Your task to perform on an android device: Go to Wikipedia Image 0: 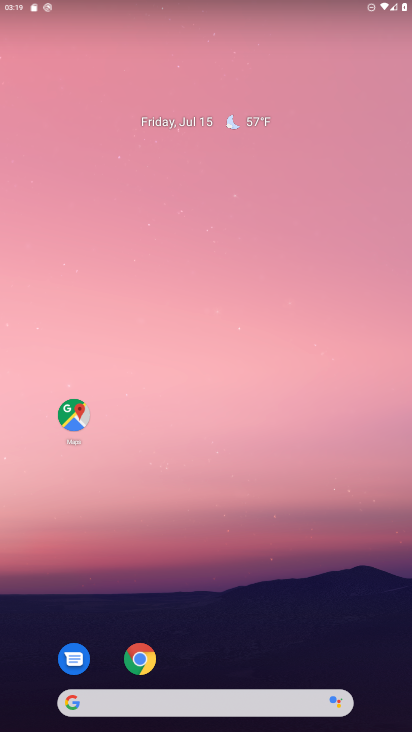
Step 0: drag from (180, 668) to (210, 140)
Your task to perform on an android device: Go to Wikipedia Image 1: 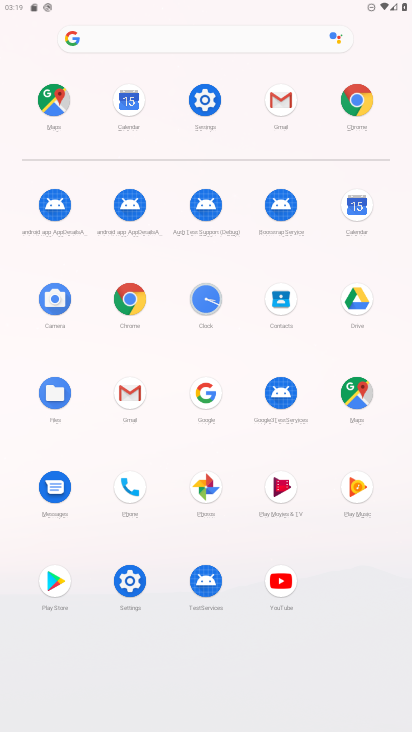
Step 1: click (127, 309)
Your task to perform on an android device: Go to Wikipedia Image 2: 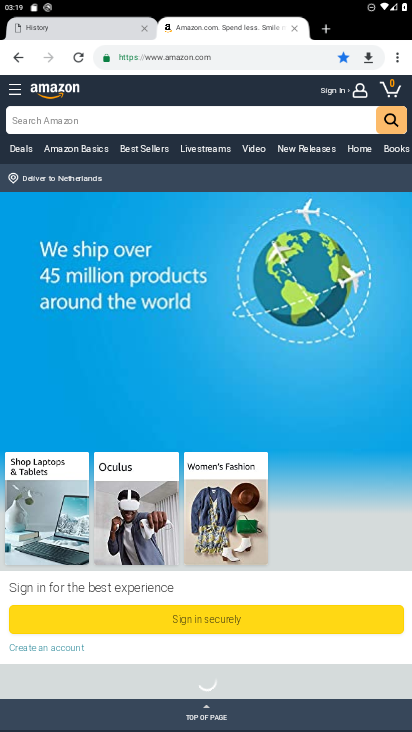
Step 2: click (152, 58)
Your task to perform on an android device: Go to Wikipedia Image 3: 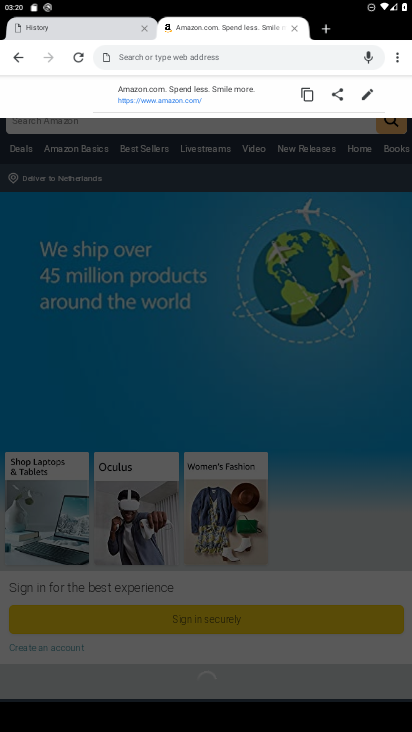
Step 3: type "wikipedia"
Your task to perform on an android device: Go to Wikipedia Image 4: 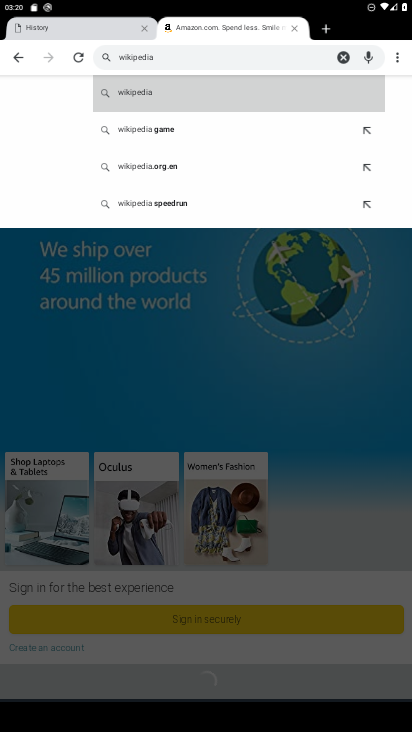
Step 4: click (135, 96)
Your task to perform on an android device: Go to Wikipedia Image 5: 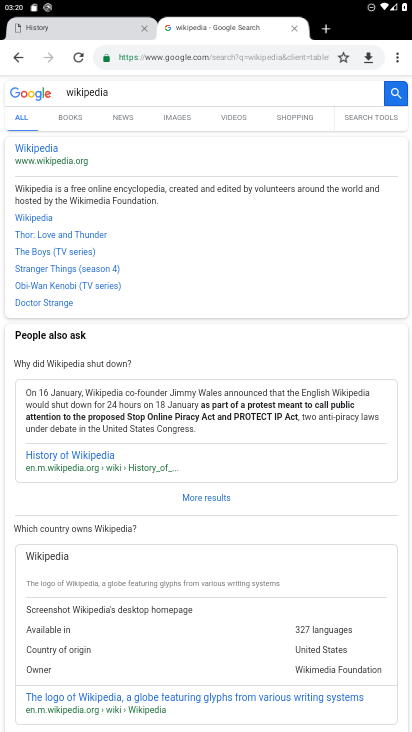
Step 5: task complete